Your task to perform on an android device: When is my next appointment? Image 0: 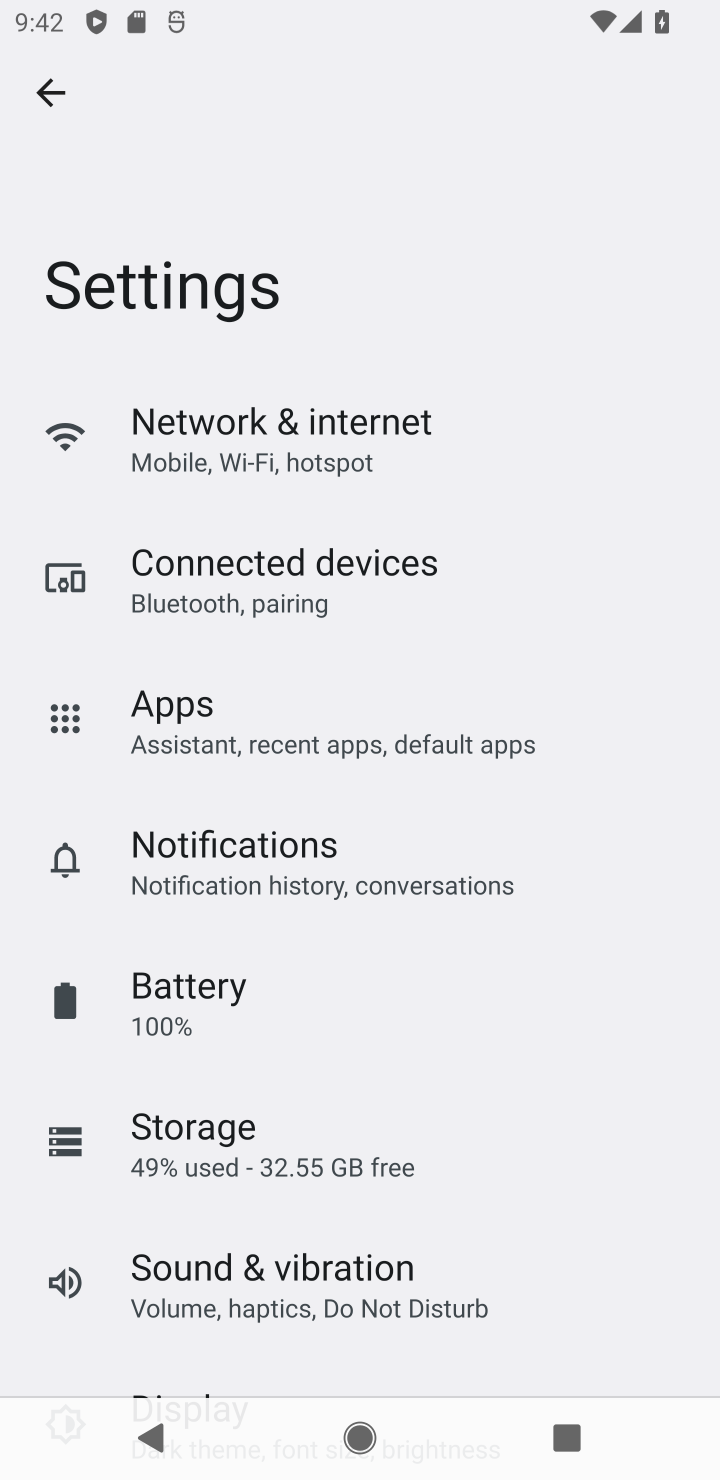
Step 0: press home button
Your task to perform on an android device: When is my next appointment? Image 1: 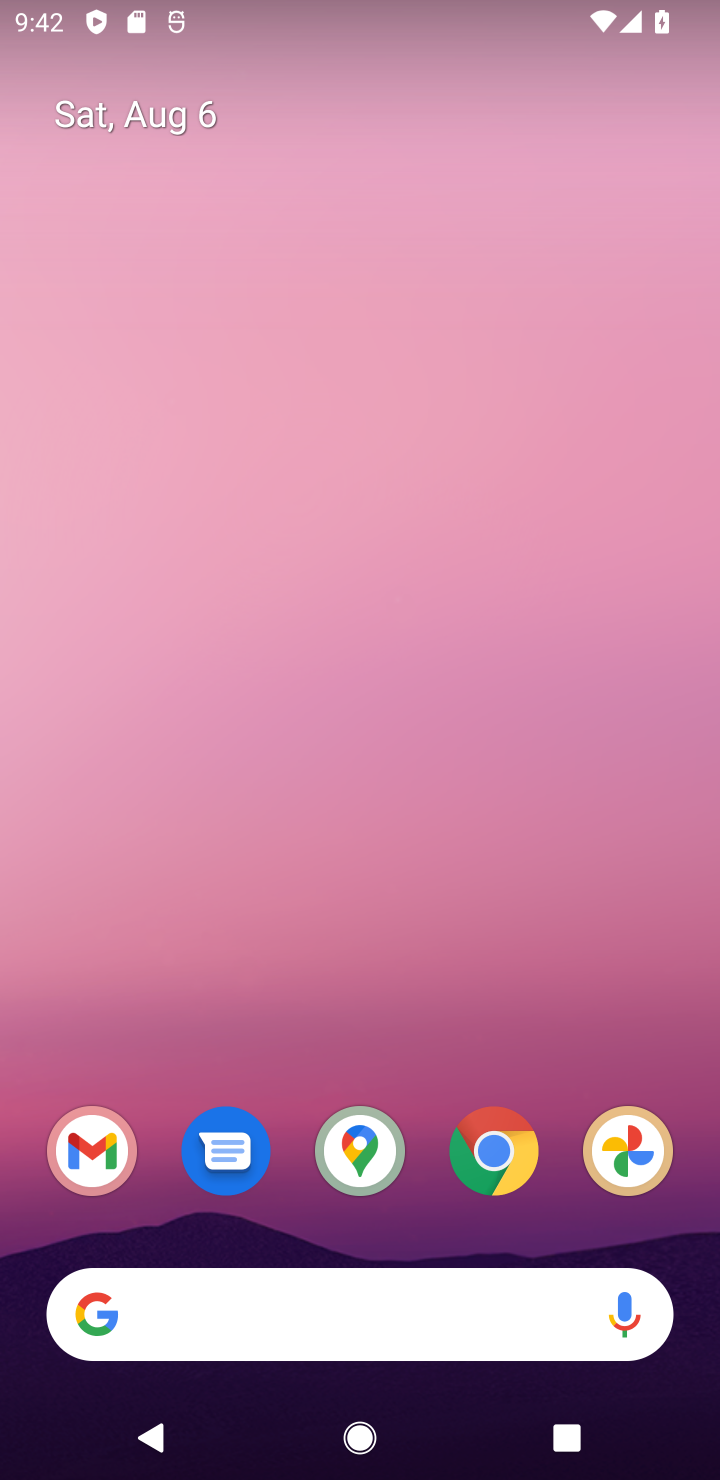
Step 1: drag from (460, 604) to (490, 189)
Your task to perform on an android device: When is my next appointment? Image 2: 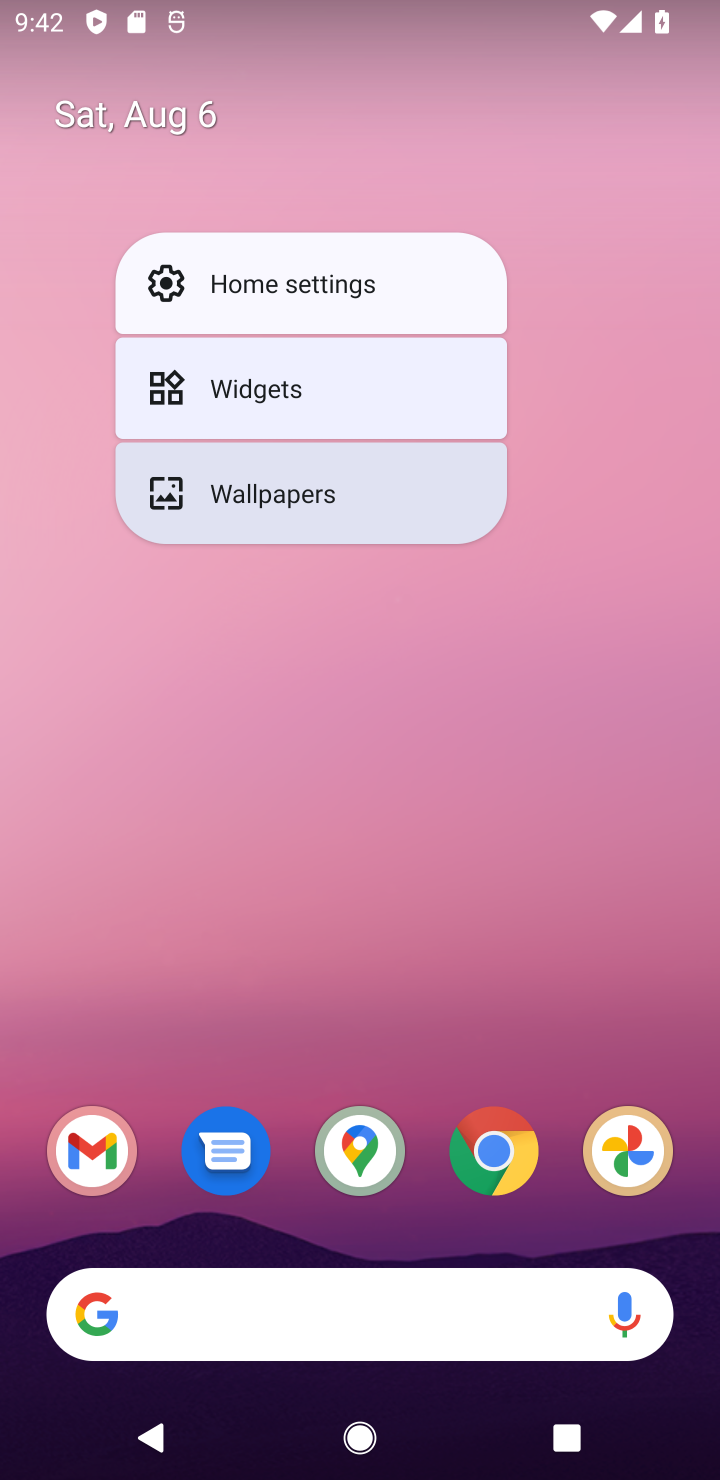
Step 2: click (579, 1031)
Your task to perform on an android device: When is my next appointment? Image 3: 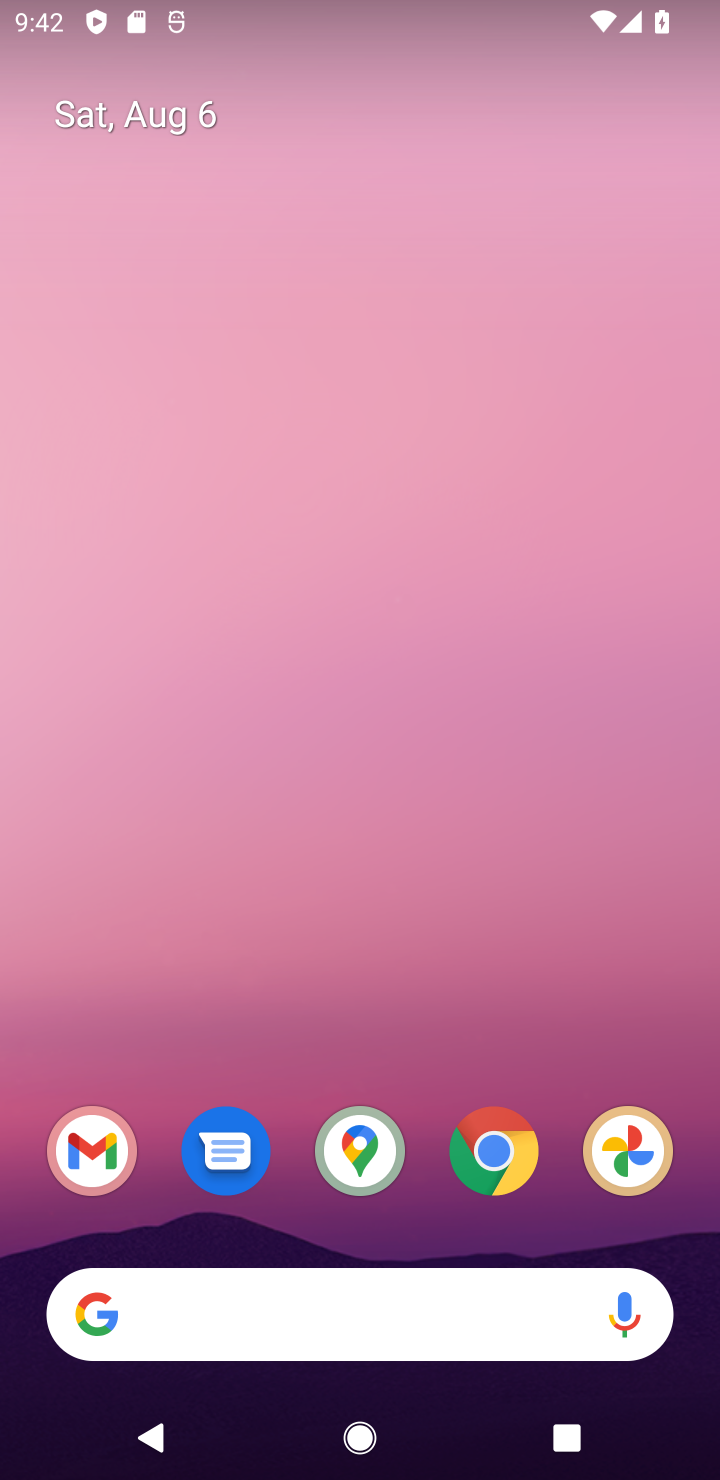
Step 3: task complete